Your task to perform on an android device: Search for vegetarian restaurants on Maps Image 0: 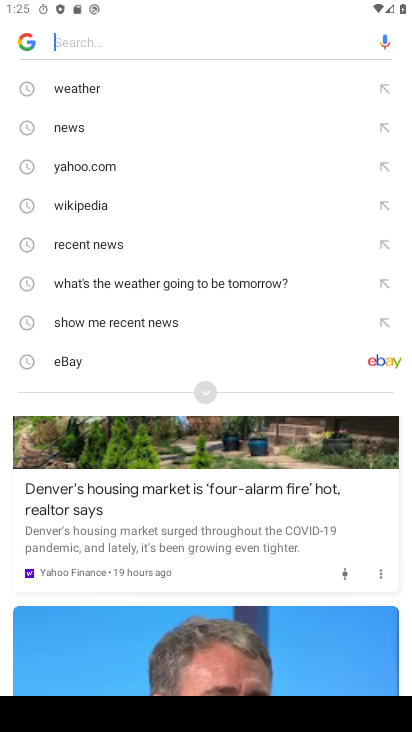
Step 0: press home button
Your task to perform on an android device: Search for vegetarian restaurants on Maps Image 1: 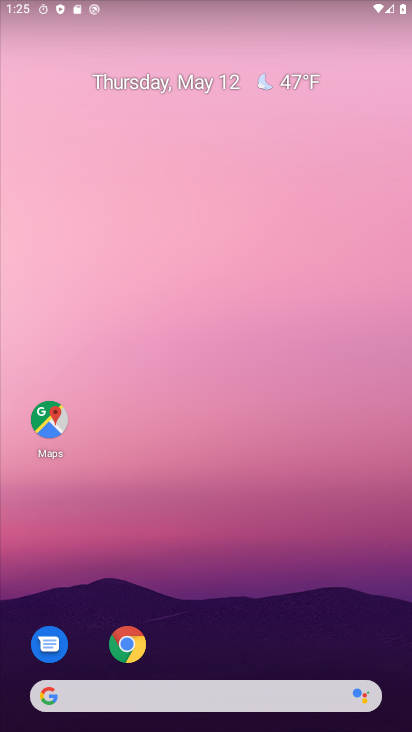
Step 1: drag from (180, 731) to (174, 90)
Your task to perform on an android device: Search for vegetarian restaurants on Maps Image 2: 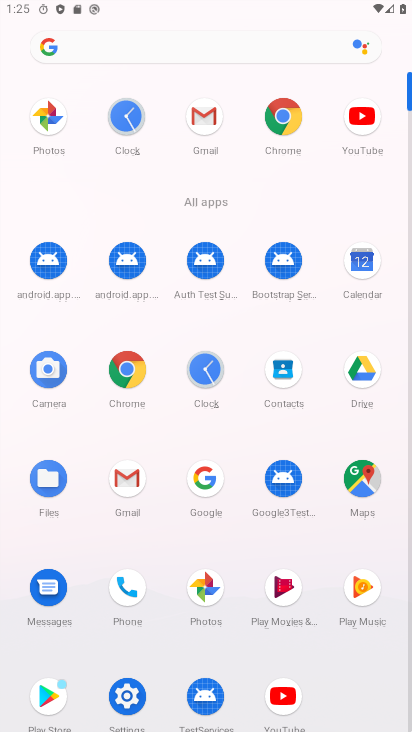
Step 2: click (369, 480)
Your task to perform on an android device: Search for vegetarian restaurants on Maps Image 3: 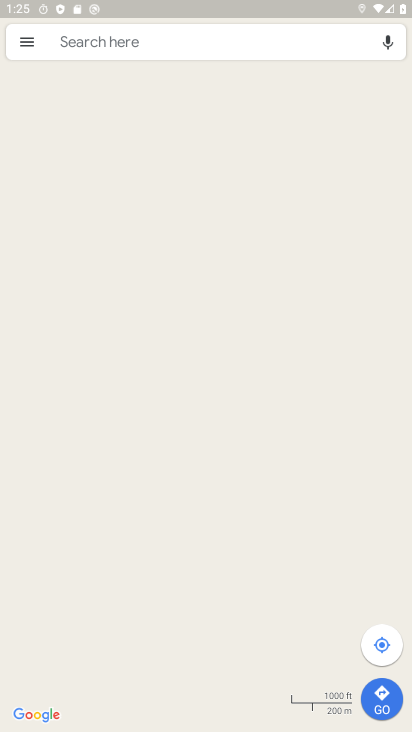
Step 3: click (162, 46)
Your task to perform on an android device: Search for vegetarian restaurants on Maps Image 4: 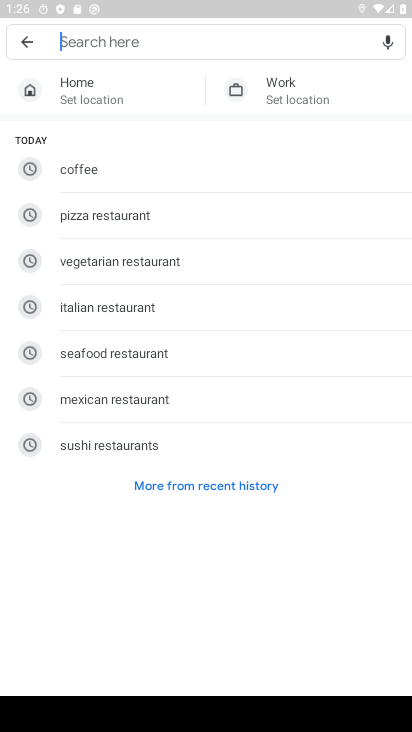
Step 4: type "vegetarian restaurants"
Your task to perform on an android device: Search for vegetarian restaurants on Maps Image 5: 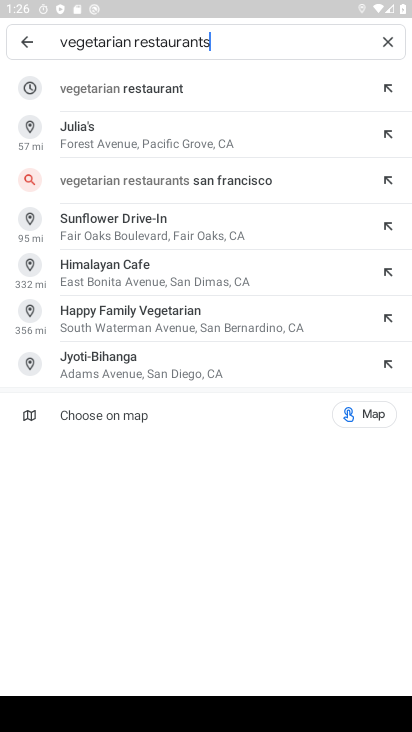
Step 5: click (85, 90)
Your task to perform on an android device: Search for vegetarian restaurants on Maps Image 6: 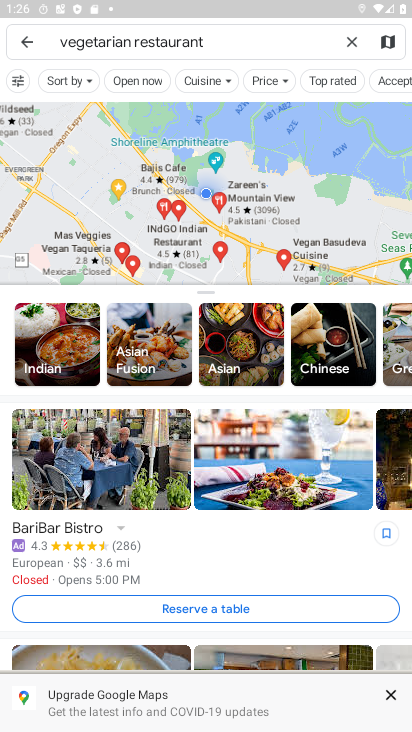
Step 6: task complete